Your task to perform on an android device: open app "Grab" Image 0: 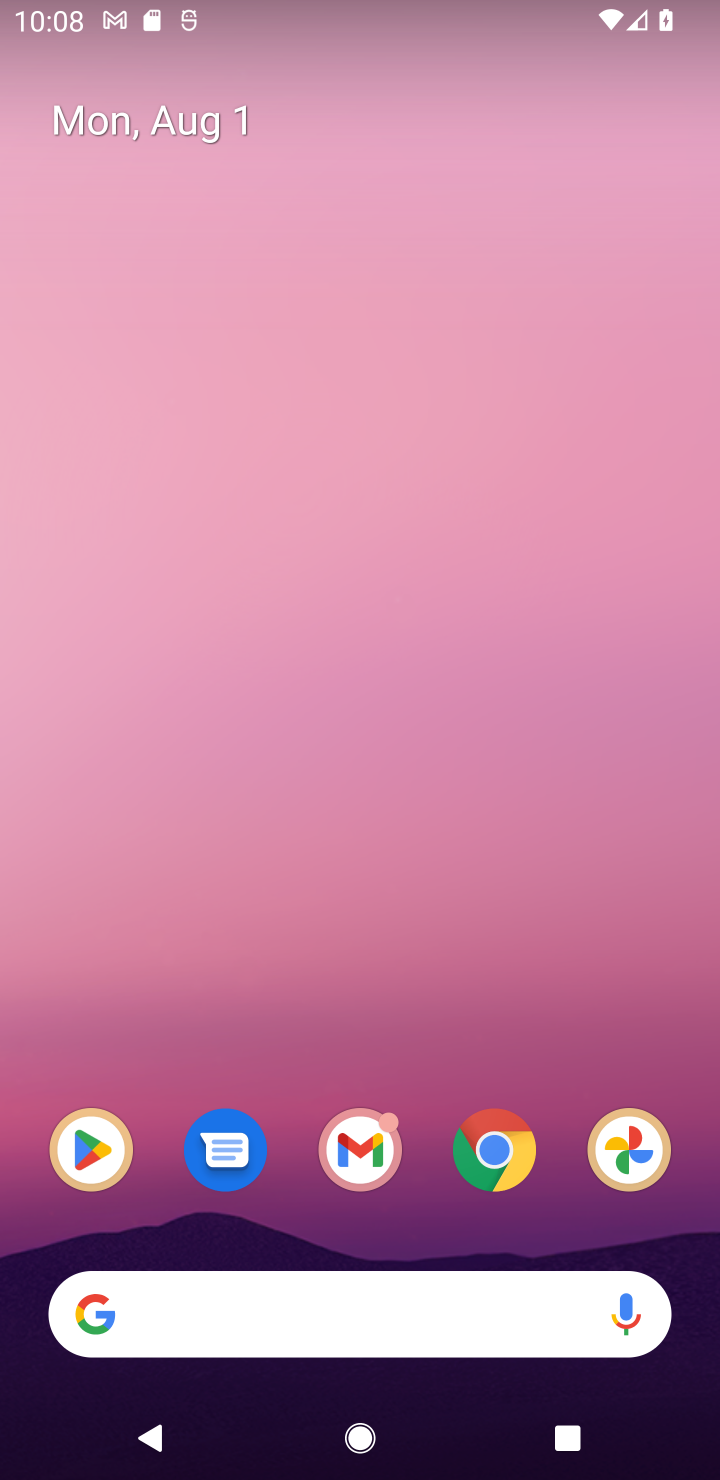
Step 0: click (90, 1145)
Your task to perform on an android device: open app "Grab" Image 1: 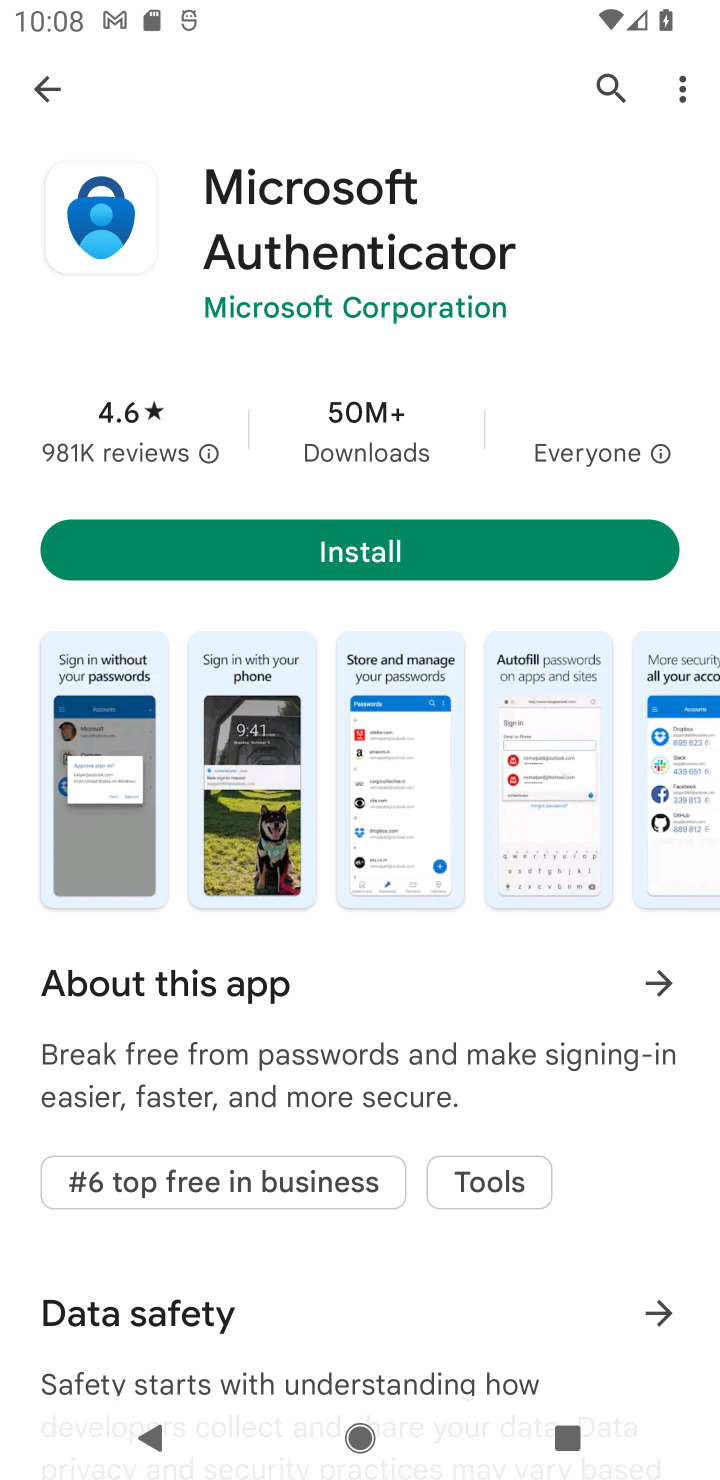
Step 1: click (601, 84)
Your task to perform on an android device: open app "Grab" Image 2: 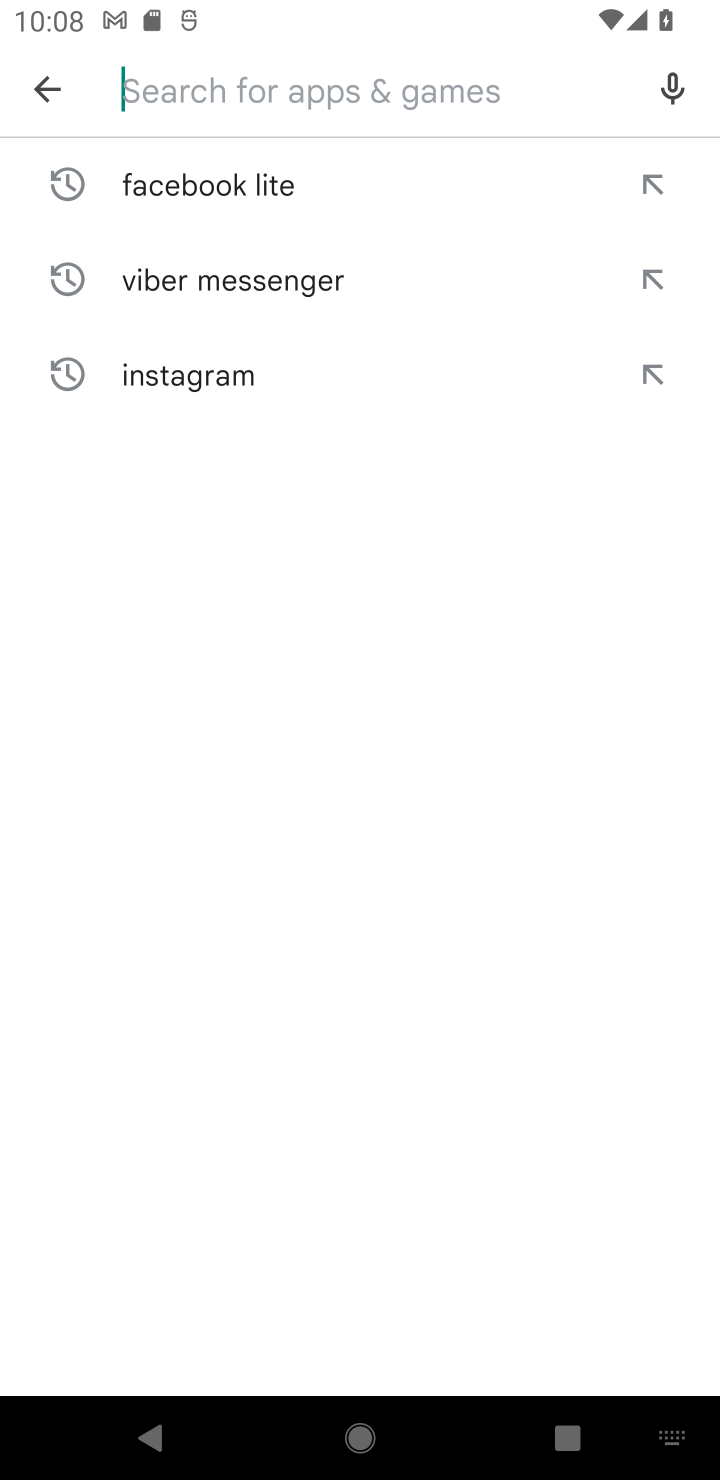
Step 2: type "grab"
Your task to perform on an android device: open app "Grab" Image 3: 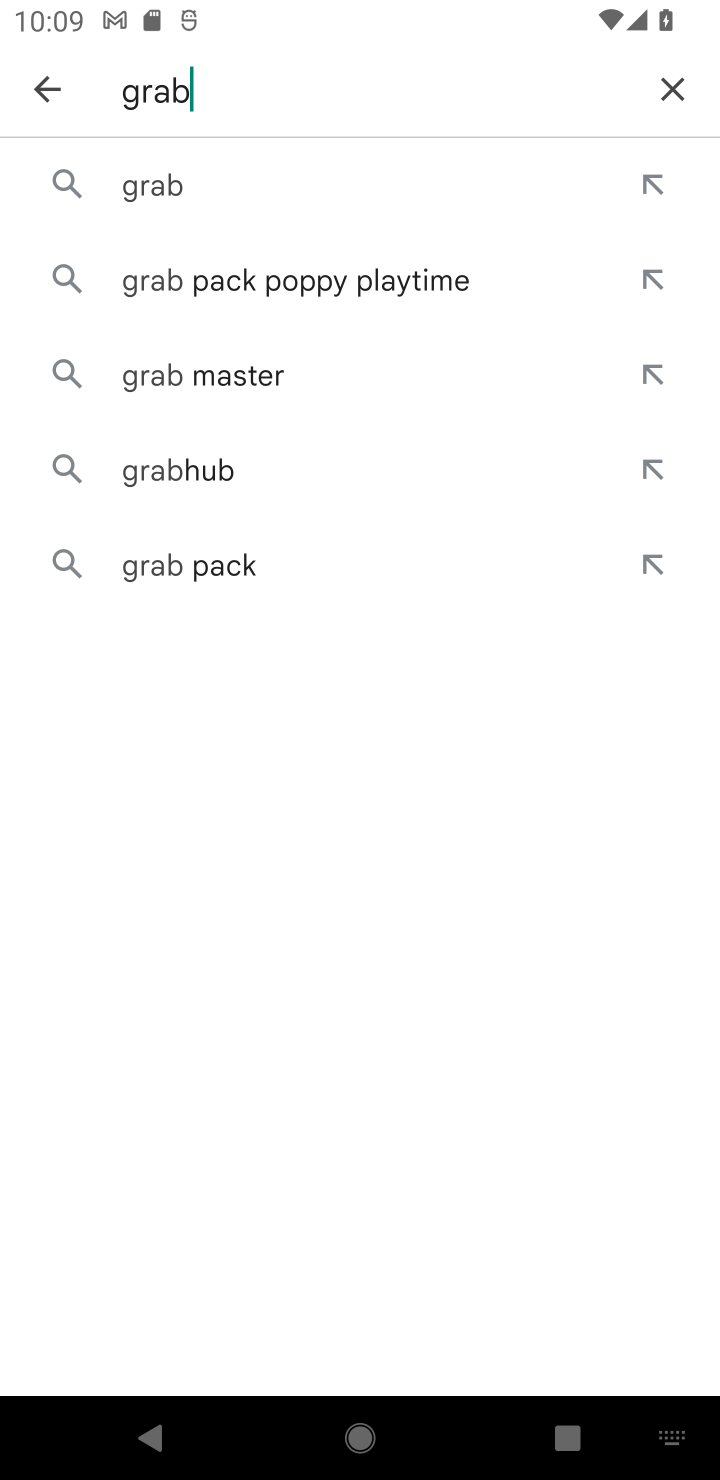
Step 3: click (211, 183)
Your task to perform on an android device: open app "Grab" Image 4: 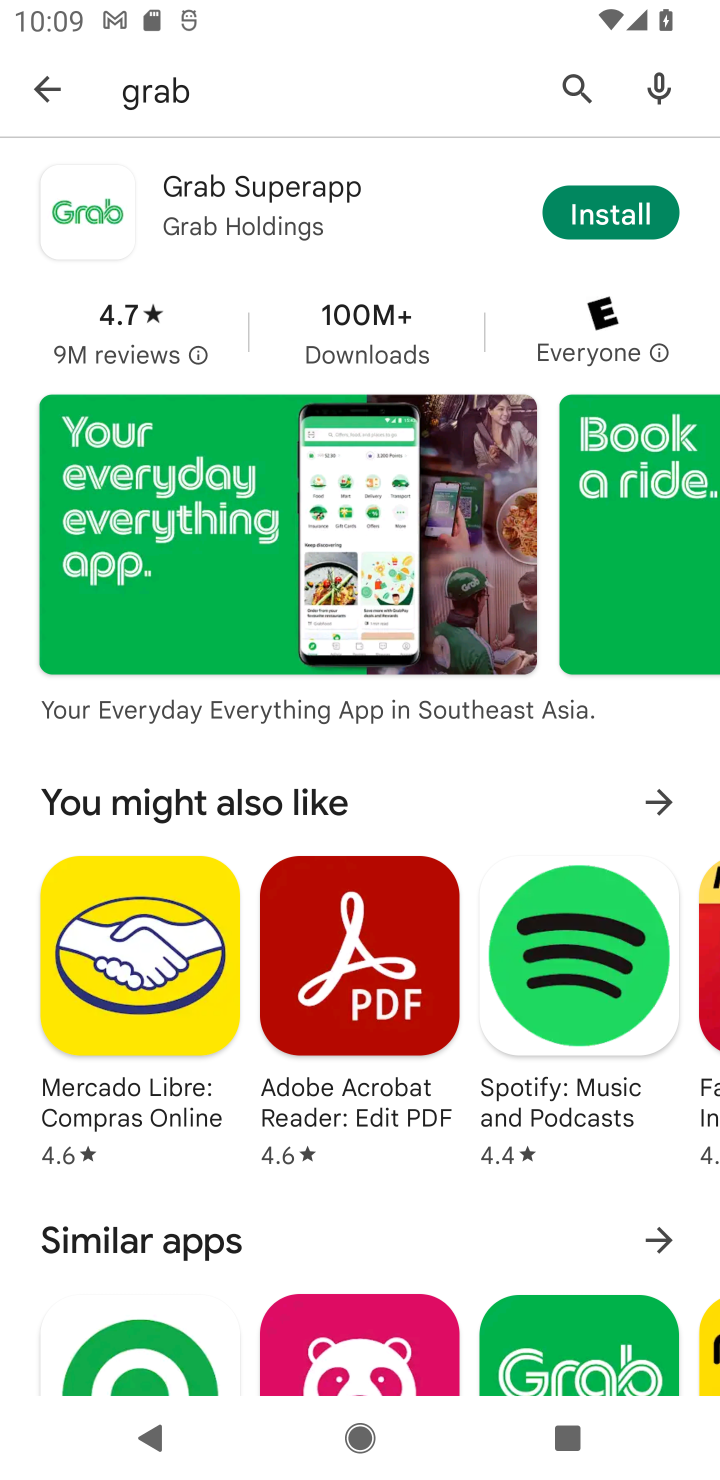
Step 4: task complete